Your task to perform on an android device: Do I have any events today? Image 0: 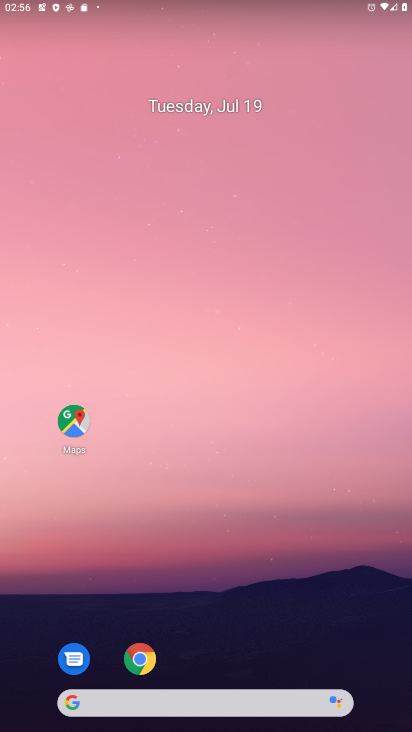
Step 0: press home button
Your task to perform on an android device: Do I have any events today? Image 1: 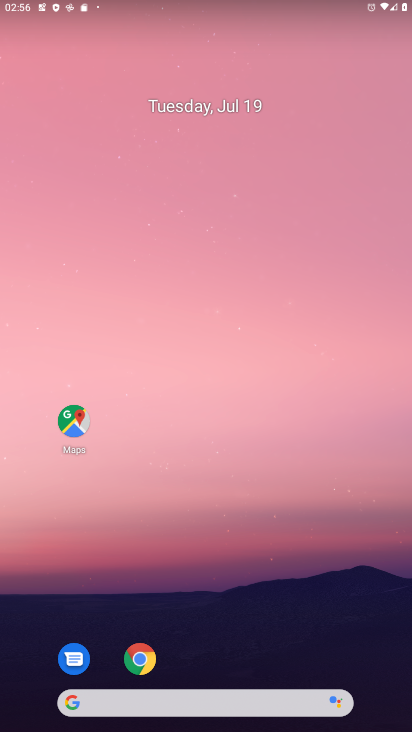
Step 1: drag from (242, 667) to (236, 31)
Your task to perform on an android device: Do I have any events today? Image 2: 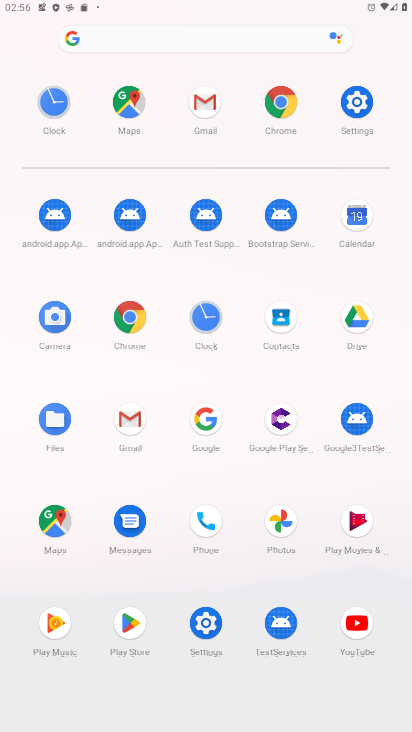
Step 2: click (345, 238)
Your task to perform on an android device: Do I have any events today? Image 3: 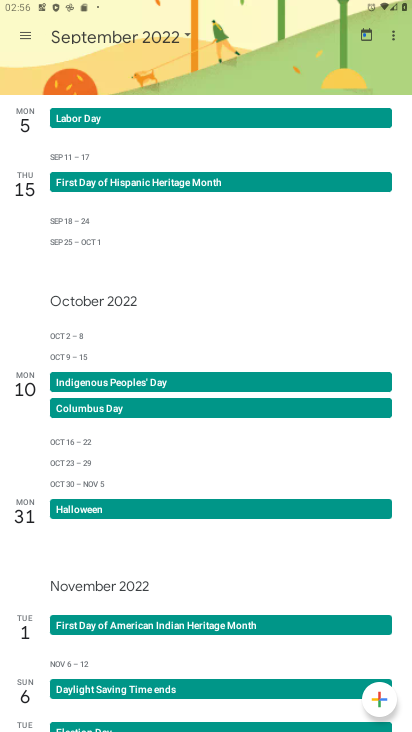
Step 3: click (188, 41)
Your task to perform on an android device: Do I have any events today? Image 4: 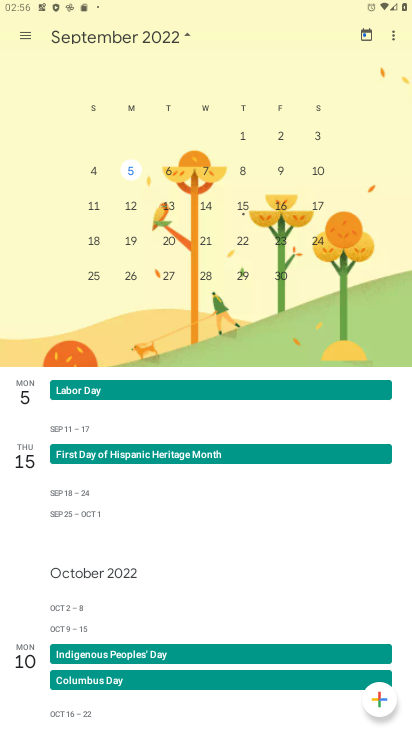
Step 4: drag from (103, 214) to (397, 196)
Your task to perform on an android device: Do I have any events today? Image 5: 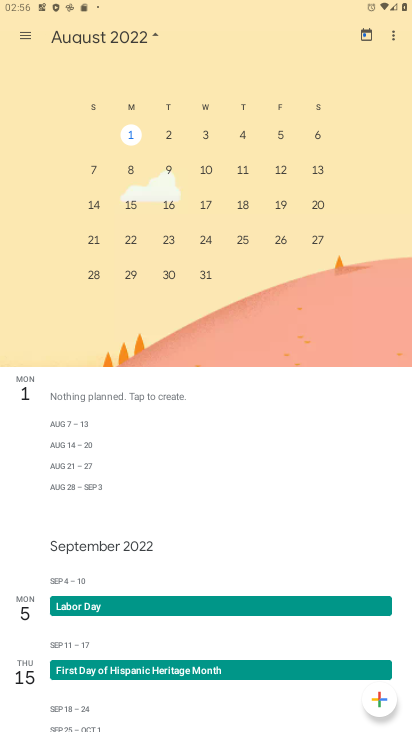
Step 5: drag from (54, 232) to (401, 241)
Your task to perform on an android device: Do I have any events today? Image 6: 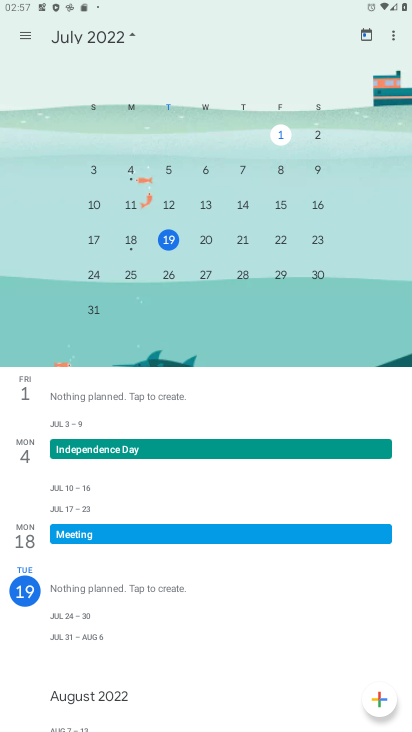
Step 6: click (176, 233)
Your task to perform on an android device: Do I have any events today? Image 7: 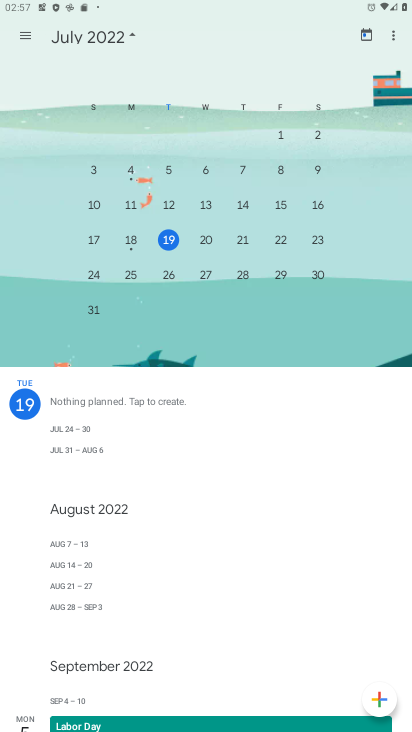
Step 7: task complete